Your task to perform on an android device: Show me the alarms in the clock app Image 0: 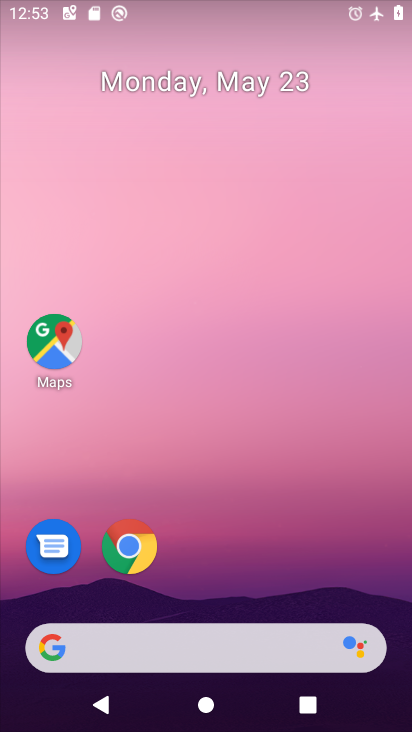
Step 0: drag from (236, 631) to (251, 96)
Your task to perform on an android device: Show me the alarms in the clock app Image 1: 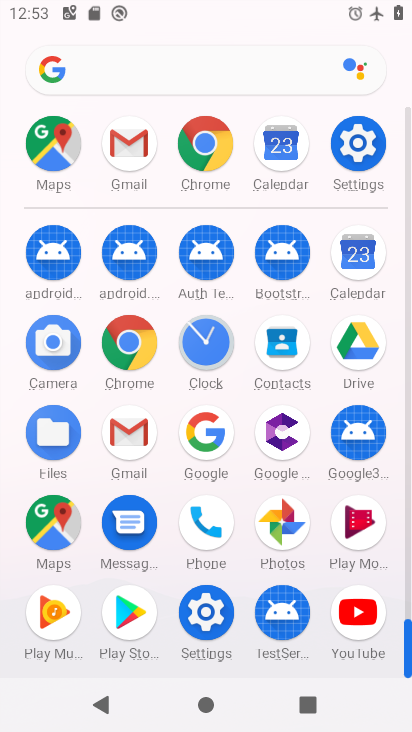
Step 1: click (202, 368)
Your task to perform on an android device: Show me the alarms in the clock app Image 2: 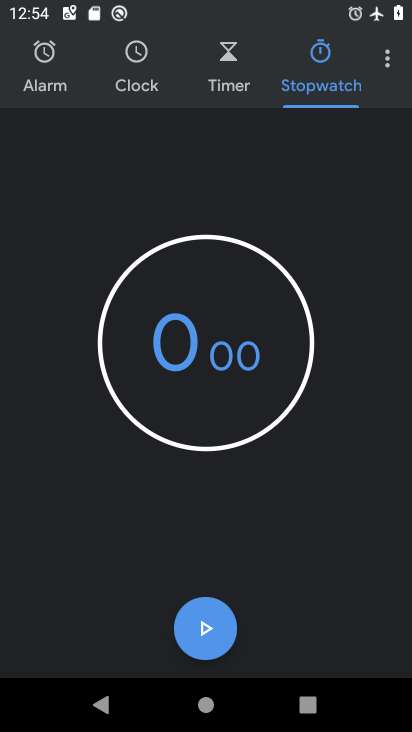
Step 2: click (47, 74)
Your task to perform on an android device: Show me the alarms in the clock app Image 3: 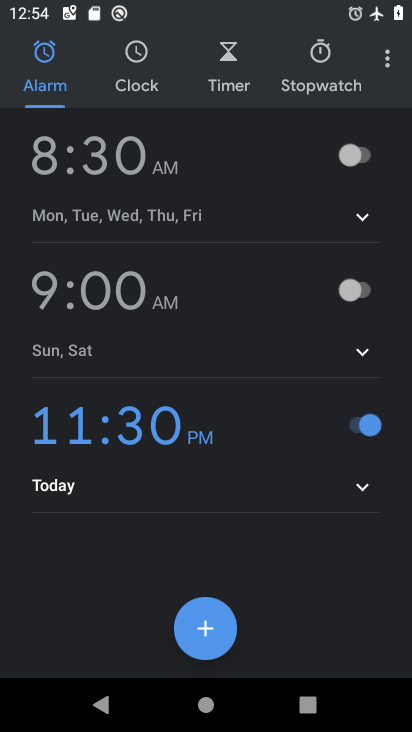
Step 3: task complete